Your task to perform on an android device: change text size in settings app Image 0: 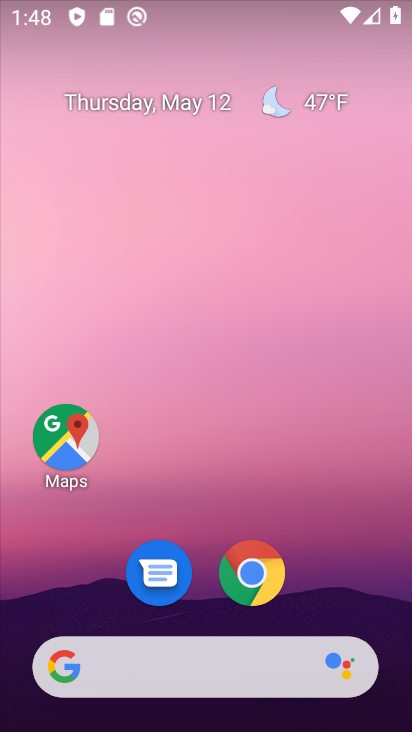
Step 0: drag from (213, 613) to (238, 164)
Your task to perform on an android device: change text size in settings app Image 1: 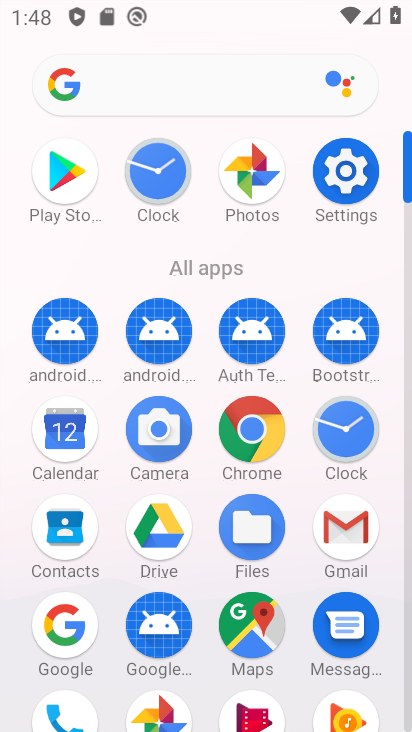
Step 1: click (326, 139)
Your task to perform on an android device: change text size in settings app Image 2: 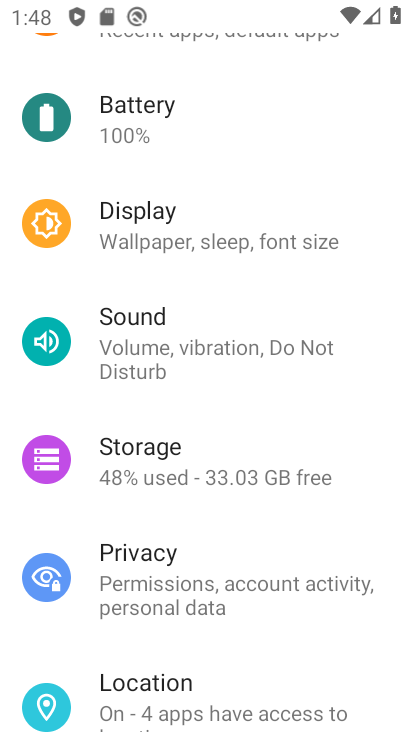
Step 2: drag from (140, 644) to (177, 472)
Your task to perform on an android device: change text size in settings app Image 3: 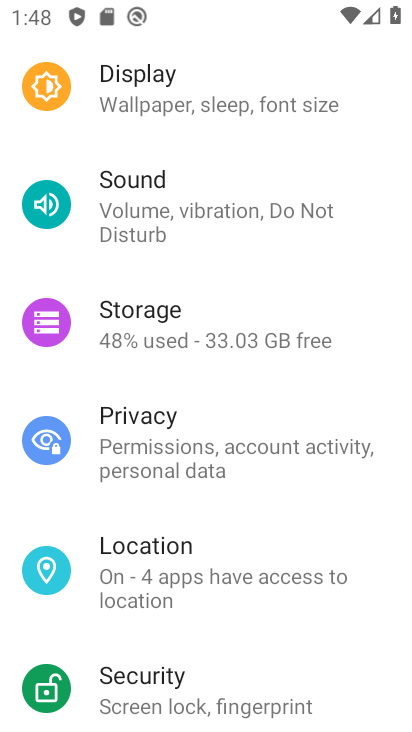
Step 3: click (192, 99)
Your task to perform on an android device: change text size in settings app Image 4: 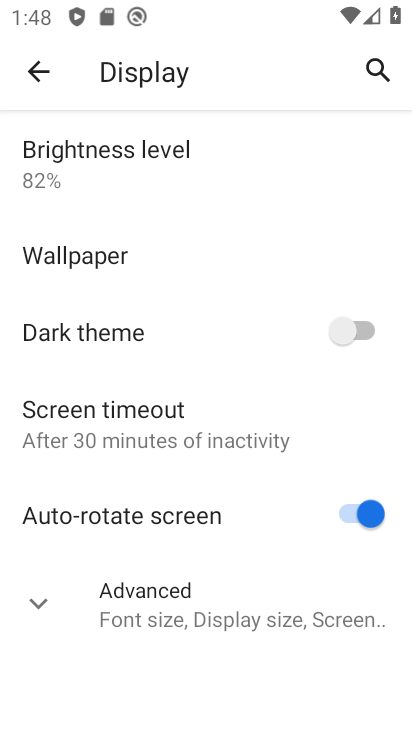
Step 4: click (208, 629)
Your task to perform on an android device: change text size in settings app Image 5: 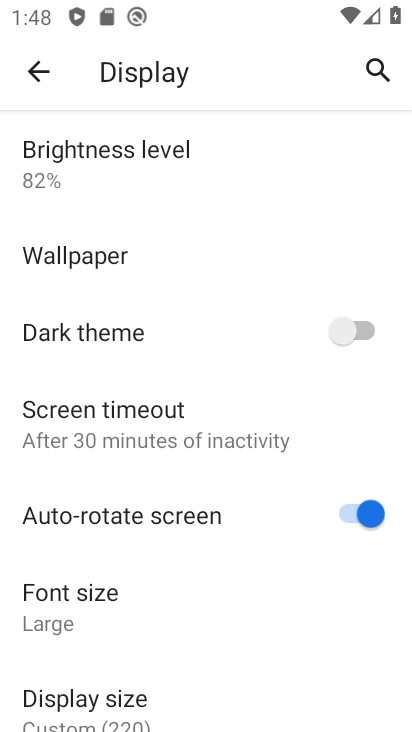
Step 5: click (153, 628)
Your task to perform on an android device: change text size in settings app Image 6: 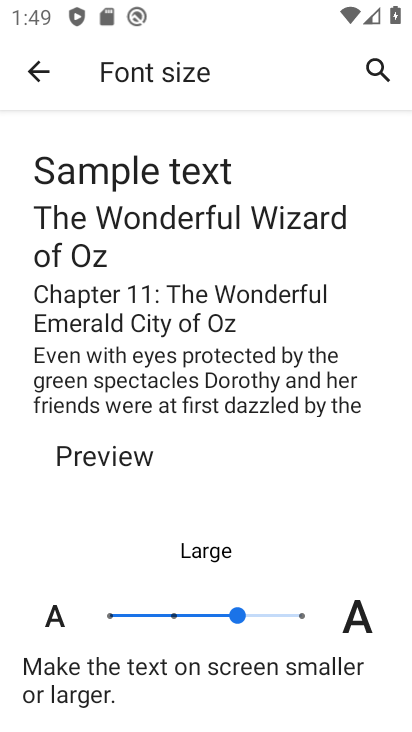
Step 6: click (115, 626)
Your task to perform on an android device: change text size in settings app Image 7: 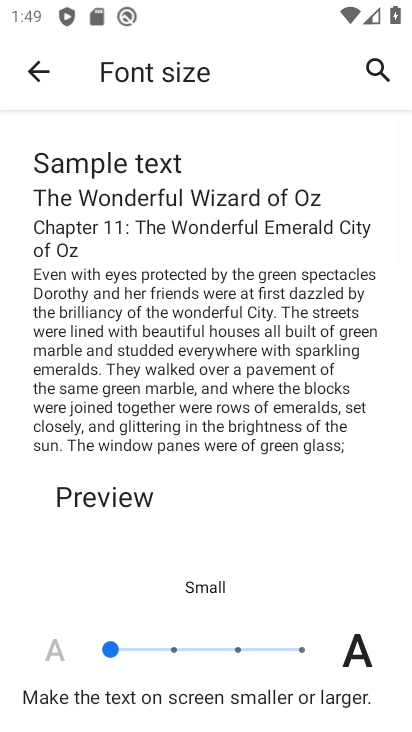
Step 7: task complete